Your task to perform on an android device: Open the Play Movies app and select the watchlist tab. Image 0: 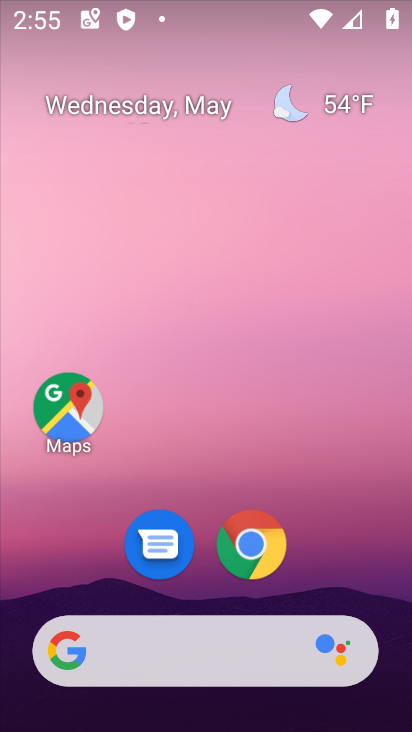
Step 0: drag from (347, 568) to (345, 428)
Your task to perform on an android device: Open the Play Movies app and select the watchlist tab. Image 1: 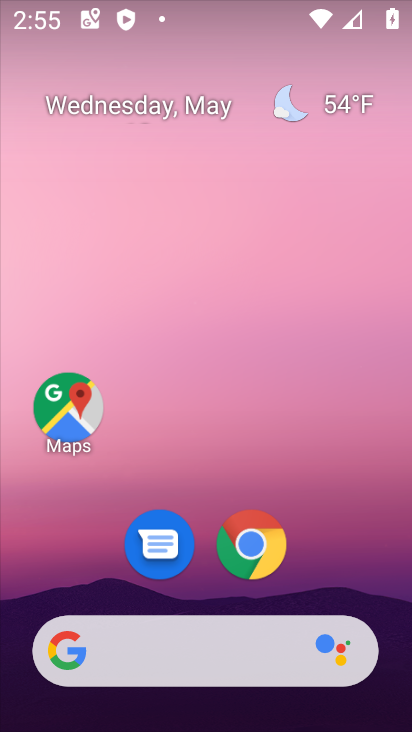
Step 1: drag from (310, 585) to (209, 143)
Your task to perform on an android device: Open the Play Movies app and select the watchlist tab. Image 2: 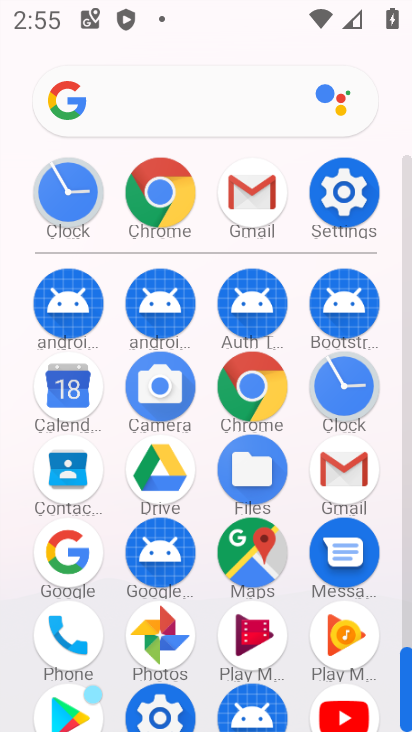
Step 2: click (265, 629)
Your task to perform on an android device: Open the Play Movies app and select the watchlist tab. Image 3: 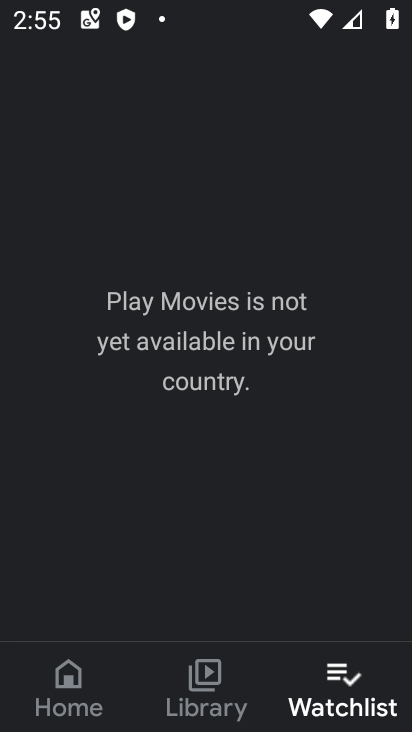
Step 3: task complete